Your task to perform on an android device: Do I have any events this weekend? Image 0: 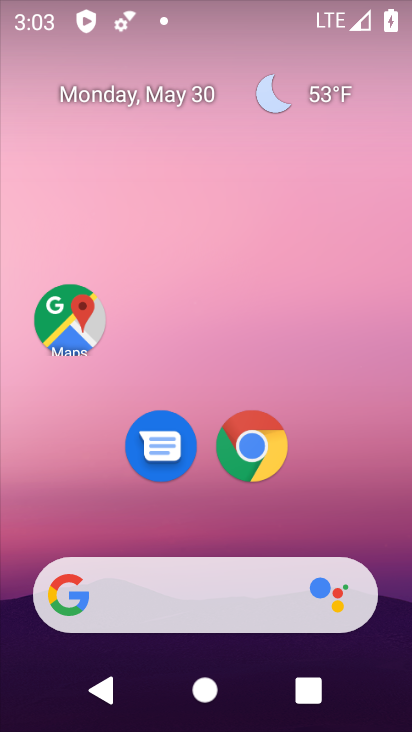
Step 0: drag from (308, 521) to (253, 103)
Your task to perform on an android device: Do I have any events this weekend? Image 1: 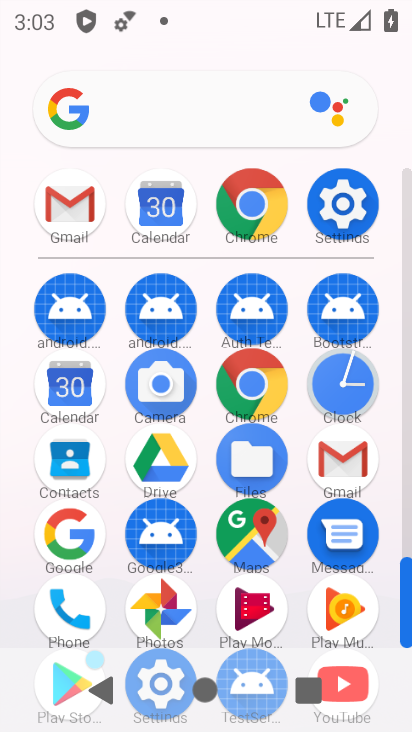
Step 1: drag from (298, 495) to (303, 282)
Your task to perform on an android device: Do I have any events this weekend? Image 2: 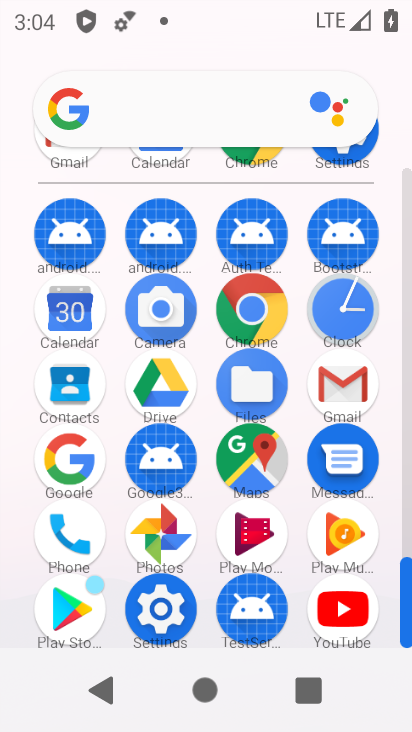
Step 2: click (78, 314)
Your task to perform on an android device: Do I have any events this weekend? Image 3: 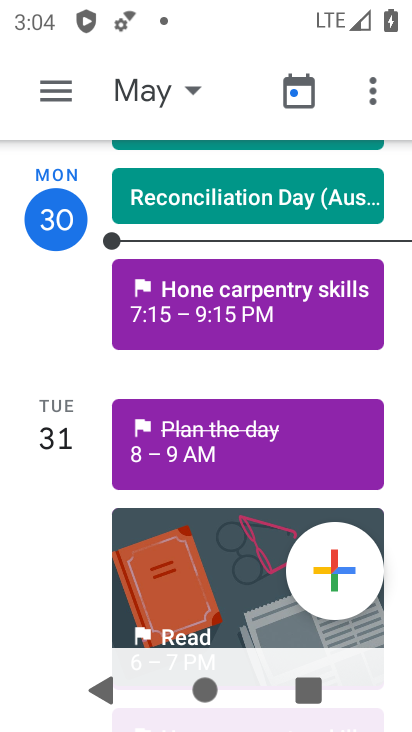
Step 3: click (191, 92)
Your task to perform on an android device: Do I have any events this weekend? Image 4: 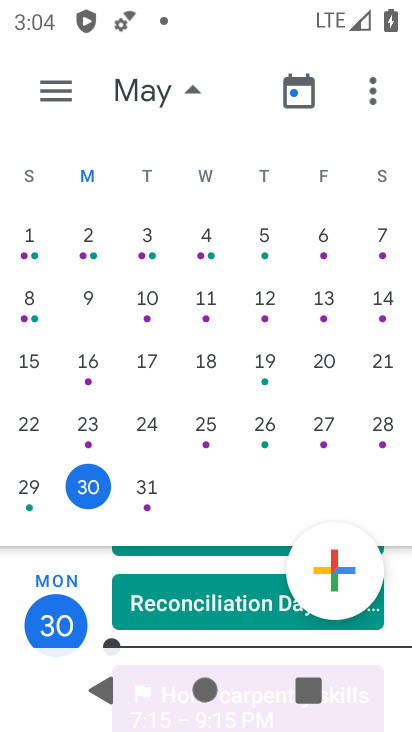
Step 4: drag from (368, 383) to (0, 461)
Your task to perform on an android device: Do I have any events this weekend? Image 5: 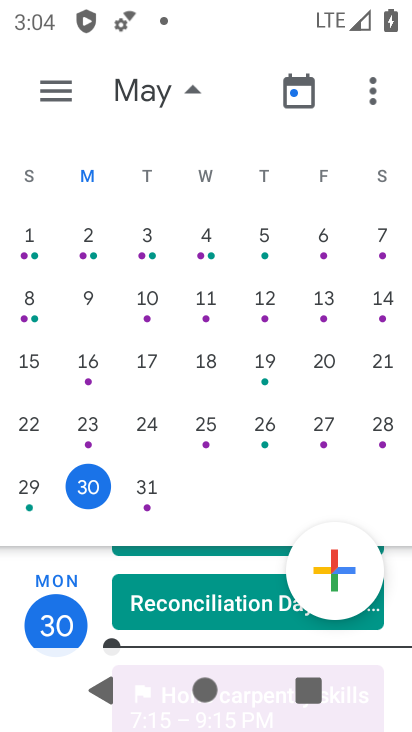
Step 5: drag from (379, 330) to (1, 295)
Your task to perform on an android device: Do I have any events this weekend? Image 6: 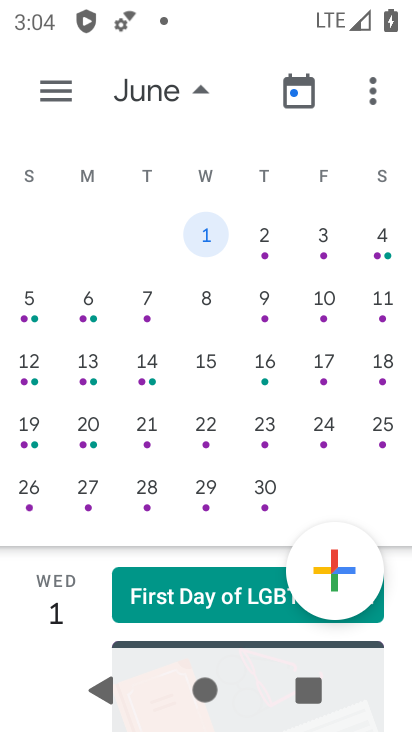
Step 6: click (382, 227)
Your task to perform on an android device: Do I have any events this weekend? Image 7: 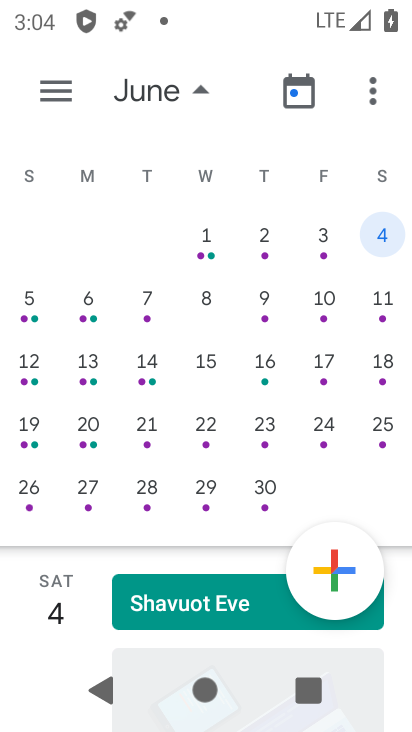
Step 7: click (43, 82)
Your task to perform on an android device: Do I have any events this weekend? Image 8: 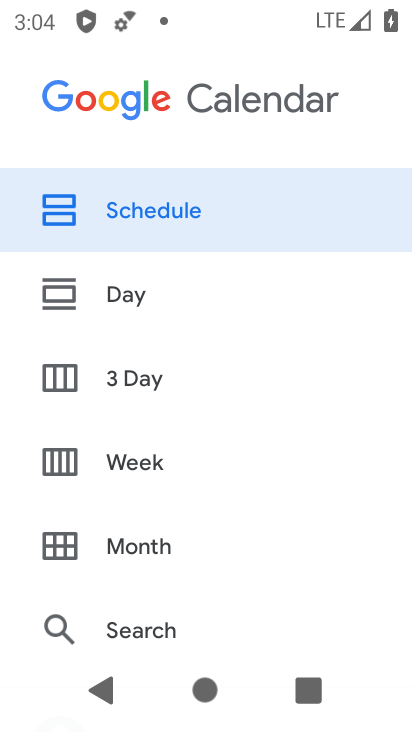
Step 8: click (95, 202)
Your task to perform on an android device: Do I have any events this weekend? Image 9: 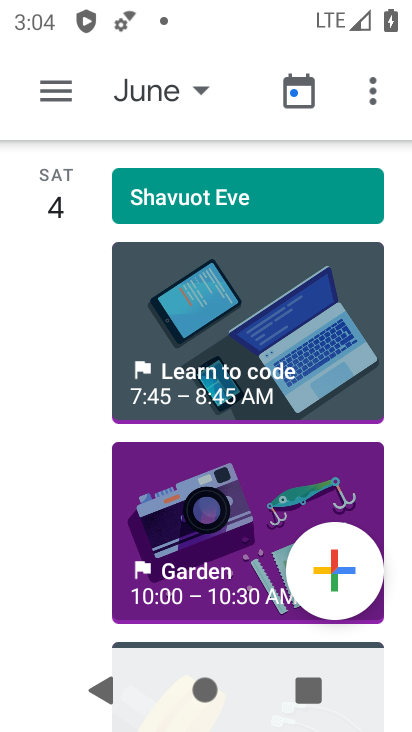
Step 9: task complete